Your task to perform on an android device: Add "bose soundsport free" to the cart on ebay.com, then select checkout. Image 0: 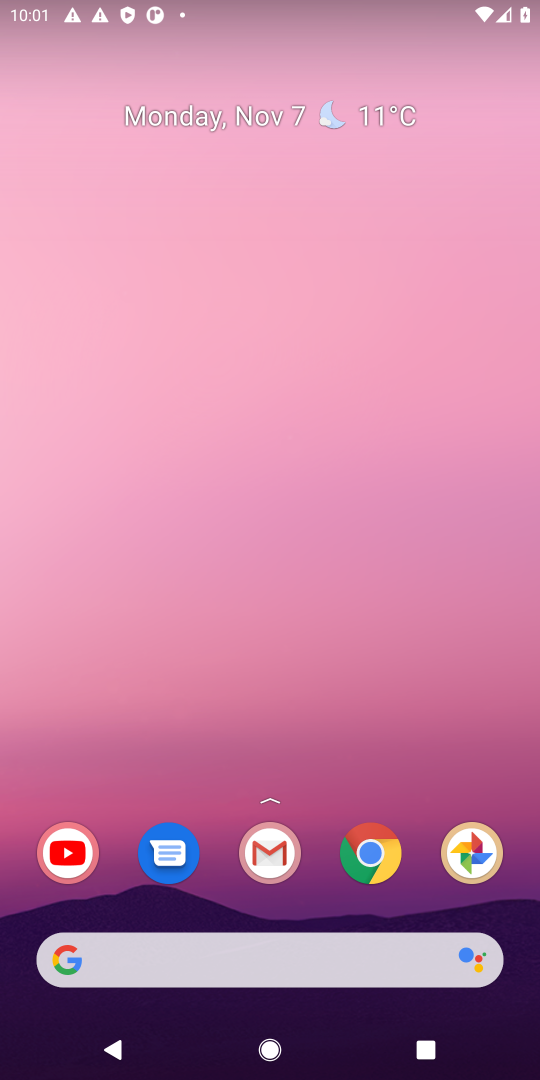
Step 0: click (296, 978)
Your task to perform on an android device: Add "bose soundsport free" to the cart on ebay.com, then select checkout. Image 1: 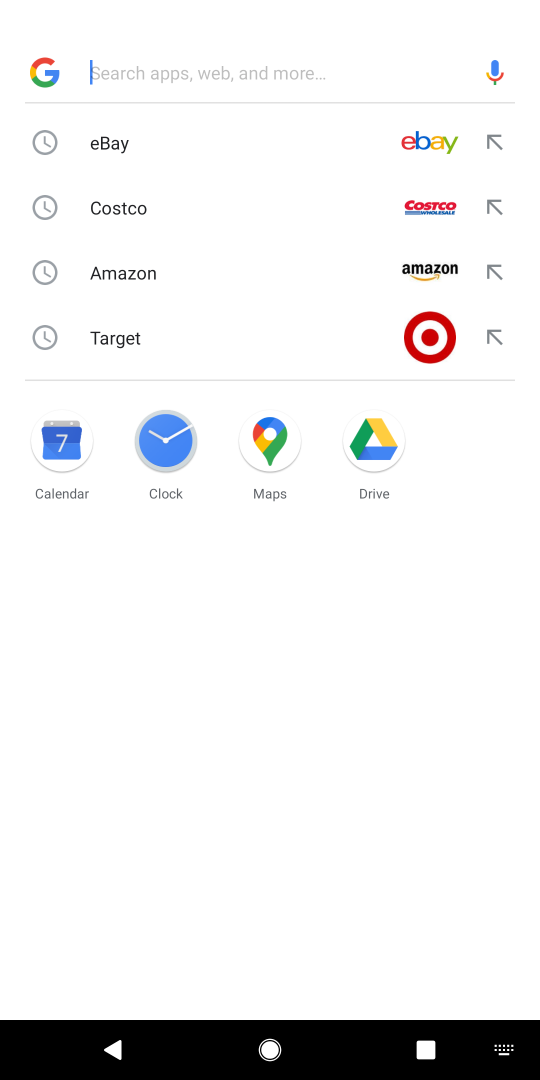
Step 1: click (134, 143)
Your task to perform on an android device: Add "bose soundsport free" to the cart on ebay.com, then select checkout. Image 2: 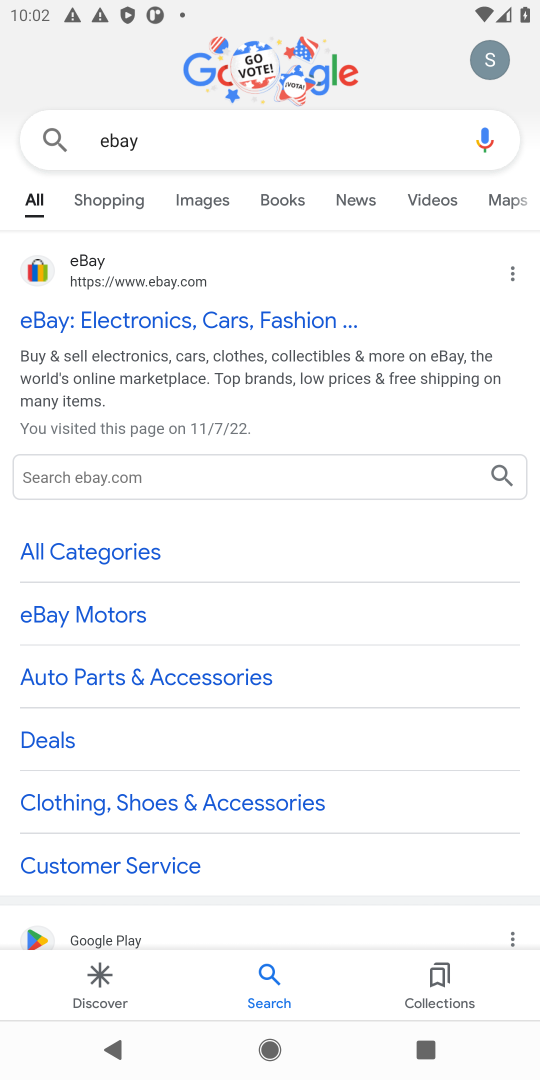
Step 2: click (221, 321)
Your task to perform on an android device: Add "bose soundsport free" to the cart on ebay.com, then select checkout. Image 3: 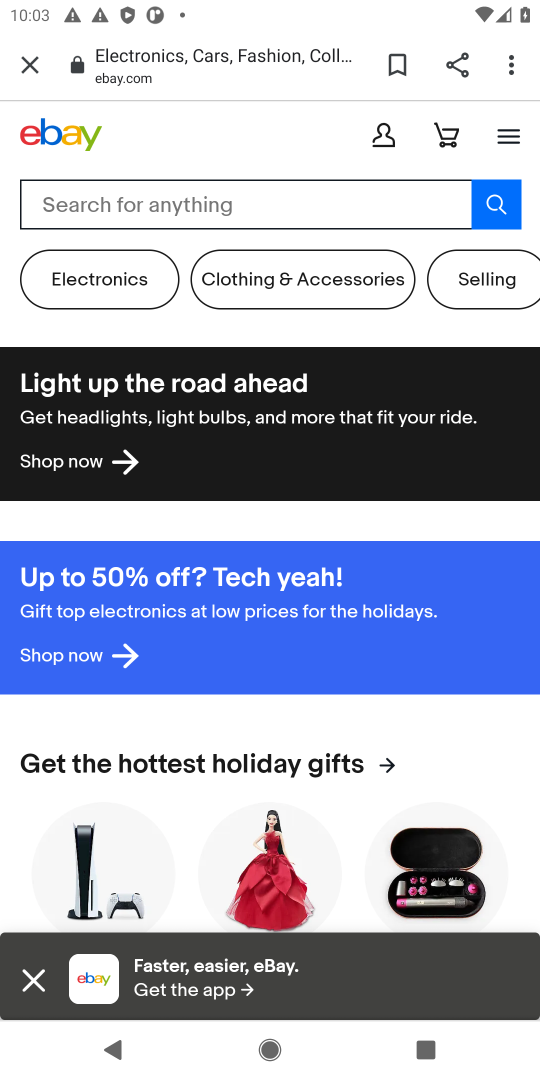
Step 3: click (345, 224)
Your task to perform on an android device: Add "bose soundsport free" to the cart on ebay.com, then select checkout. Image 4: 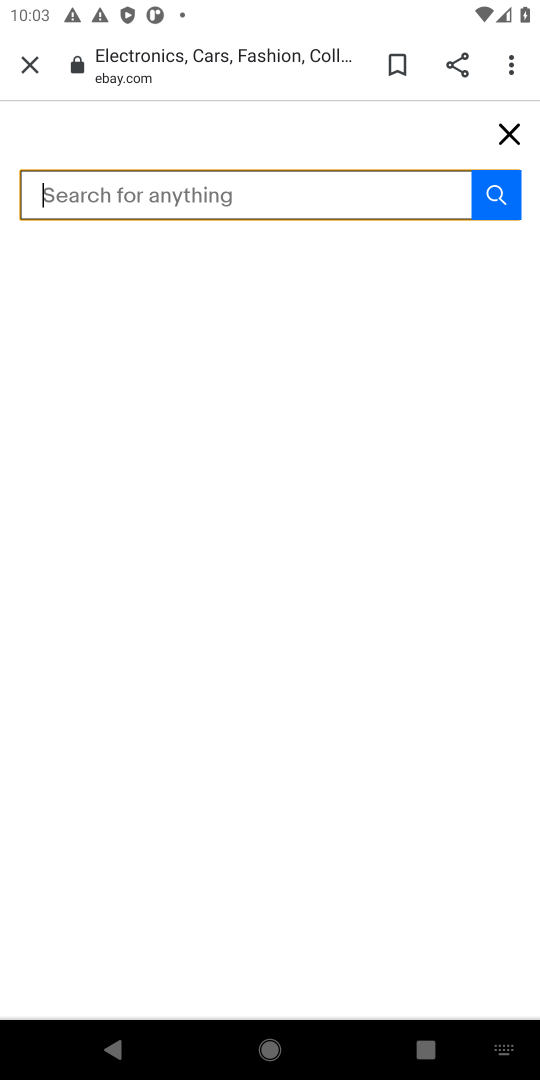
Step 4: task complete